Your task to perform on an android device: Open the calendar app, open the side menu, and click the "Day" option Image 0: 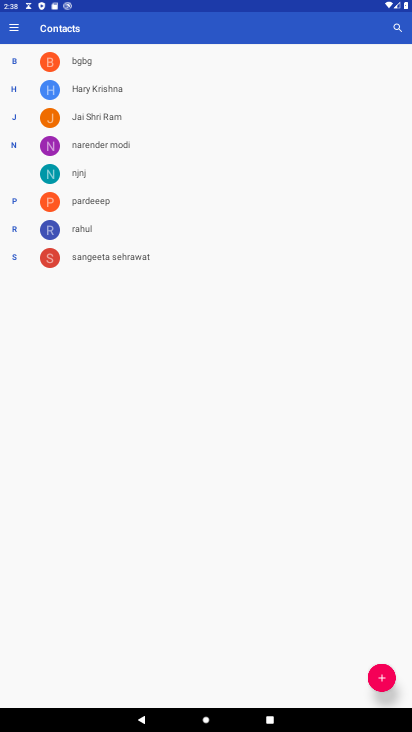
Step 0: press home button
Your task to perform on an android device: Open the calendar app, open the side menu, and click the "Day" option Image 1: 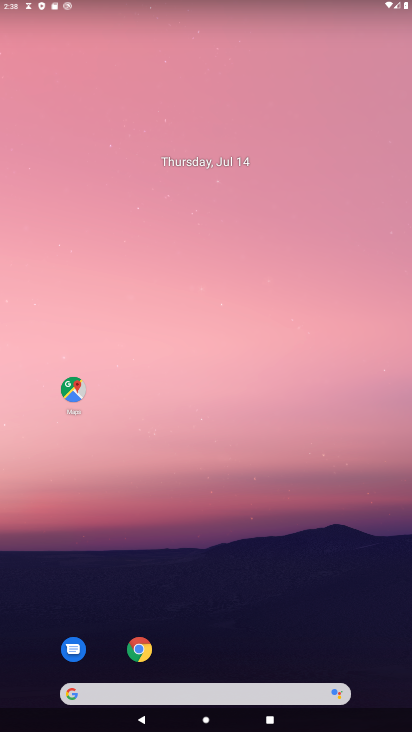
Step 1: drag from (210, 653) to (175, 52)
Your task to perform on an android device: Open the calendar app, open the side menu, and click the "Day" option Image 2: 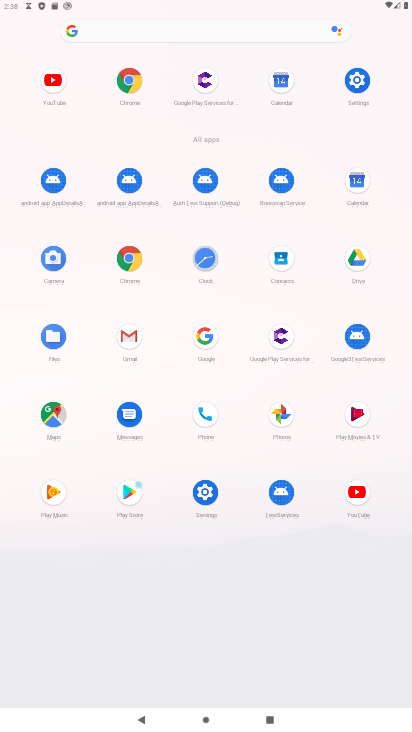
Step 2: click (362, 184)
Your task to perform on an android device: Open the calendar app, open the side menu, and click the "Day" option Image 3: 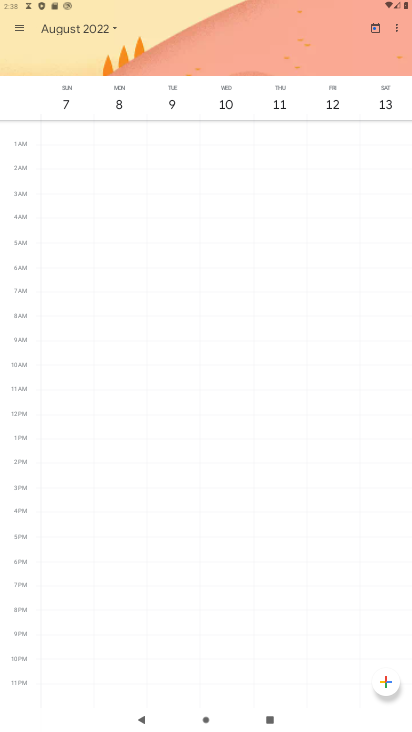
Step 3: click (20, 17)
Your task to perform on an android device: Open the calendar app, open the side menu, and click the "Day" option Image 4: 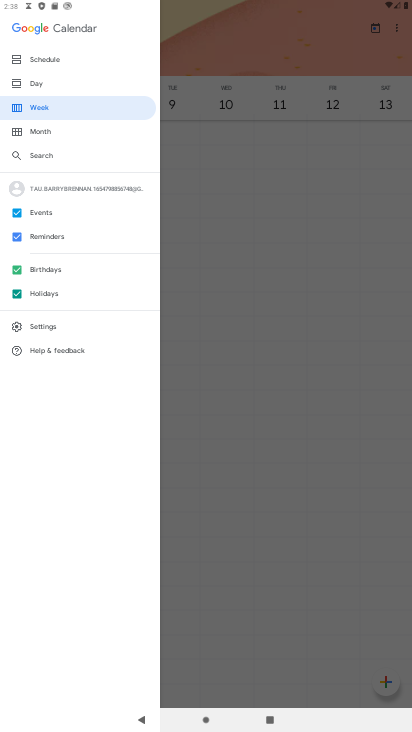
Step 4: click (48, 83)
Your task to perform on an android device: Open the calendar app, open the side menu, and click the "Day" option Image 5: 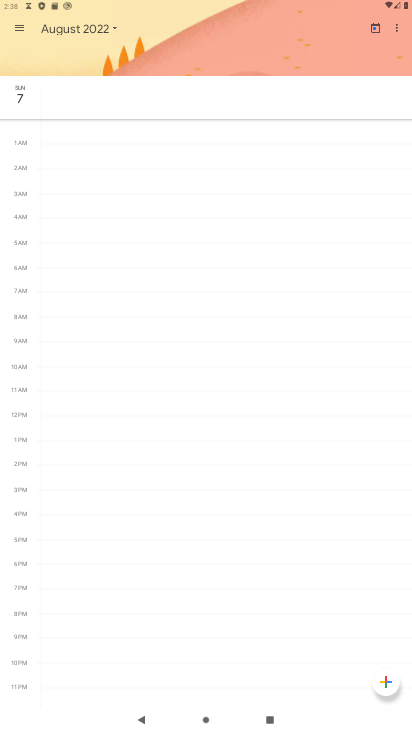
Step 5: task complete